Your task to perform on an android device: toggle pop-ups in chrome Image 0: 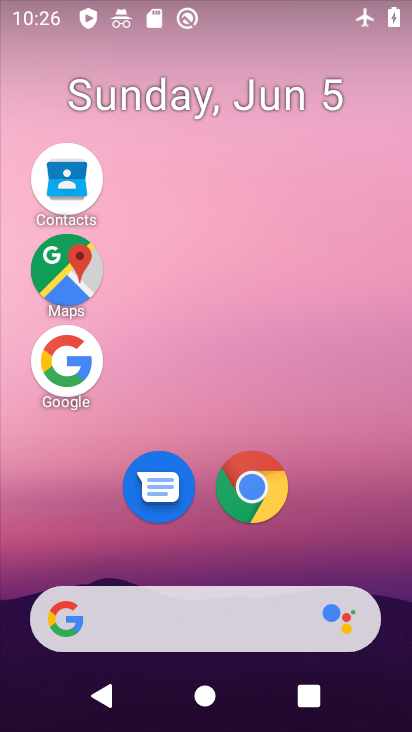
Step 0: drag from (239, 504) to (265, 191)
Your task to perform on an android device: toggle pop-ups in chrome Image 1: 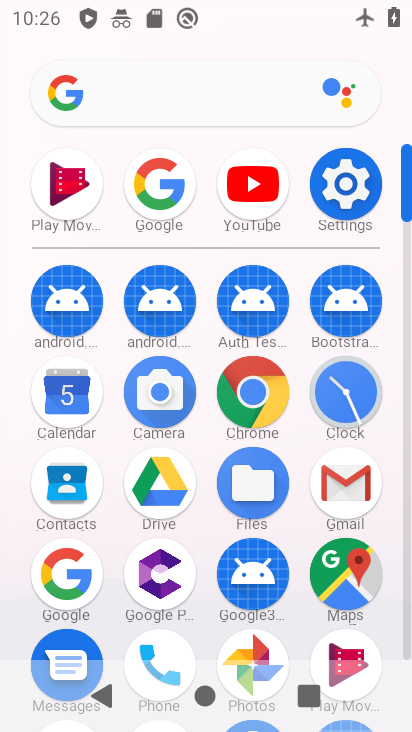
Step 1: click (260, 399)
Your task to perform on an android device: toggle pop-ups in chrome Image 2: 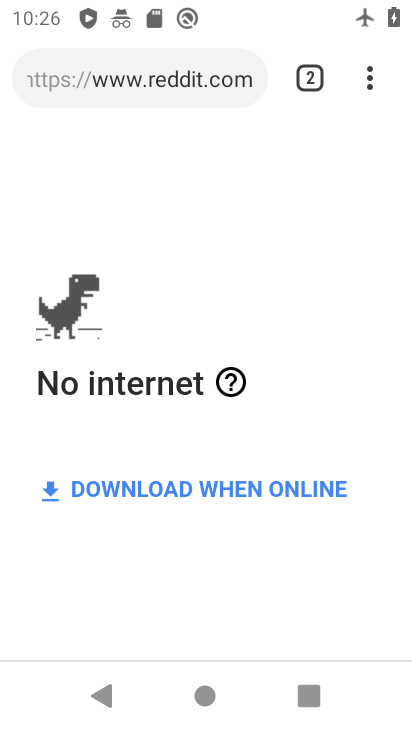
Step 2: click (377, 91)
Your task to perform on an android device: toggle pop-ups in chrome Image 3: 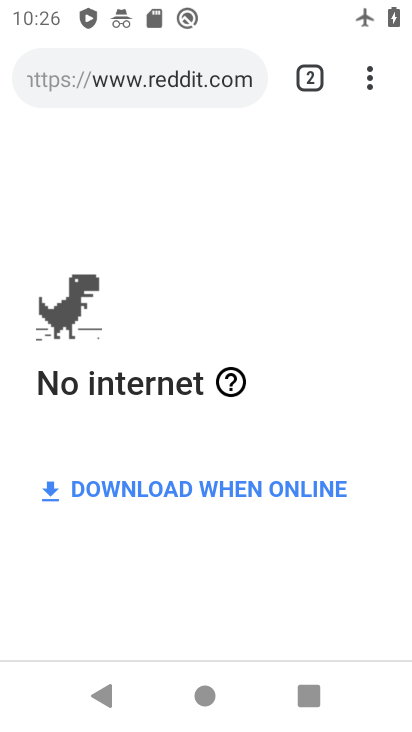
Step 3: click (363, 93)
Your task to perform on an android device: toggle pop-ups in chrome Image 4: 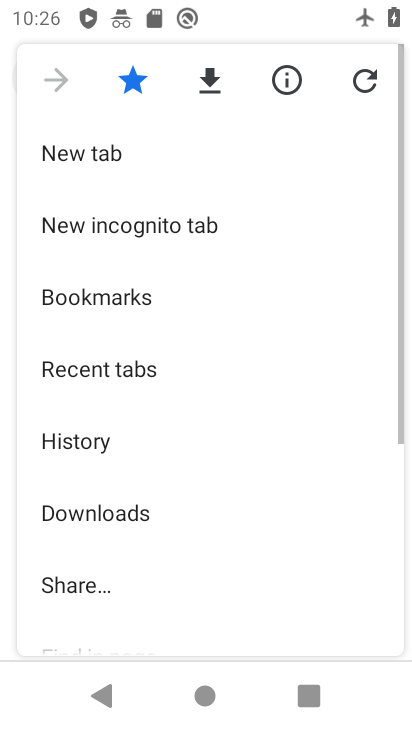
Step 4: drag from (197, 381) to (308, 60)
Your task to perform on an android device: toggle pop-ups in chrome Image 5: 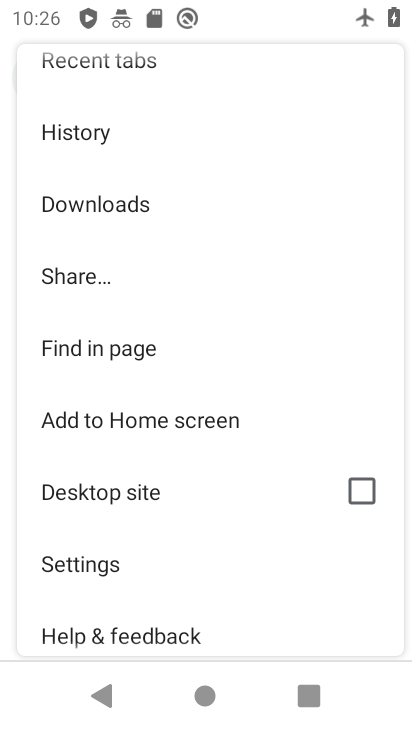
Step 5: click (161, 561)
Your task to perform on an android device: toggle pop-ups in chrome Image 6: 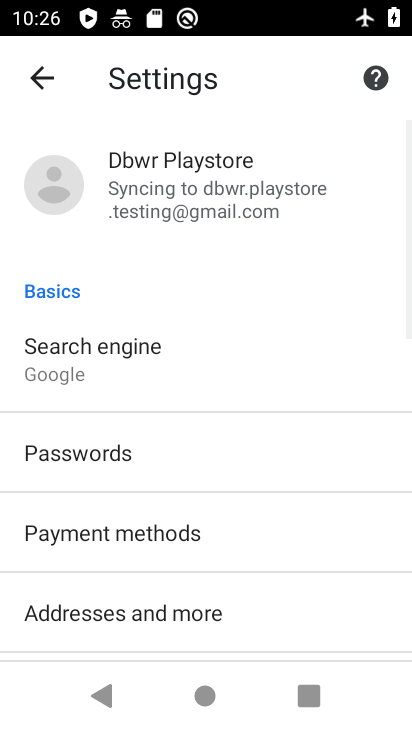
Step 6: drag from (182, 507) to (241, 159)
Your task to perform on an android device: toggle pop-ups in chrome Image 7: 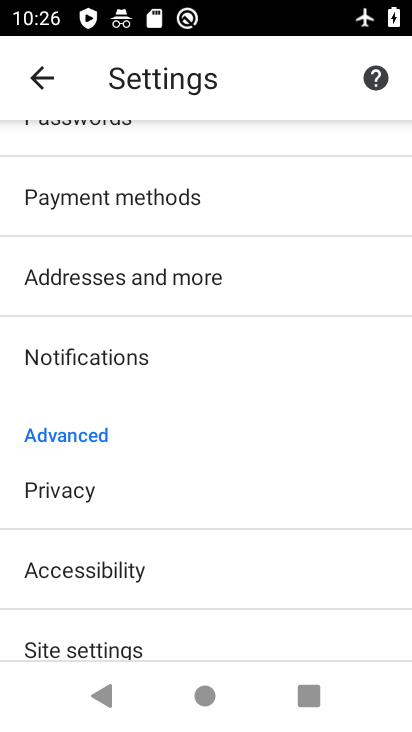
Step 7: click (125, 645)
Your task to perform on an android device: toggle pop-ups in chrome Image 8: 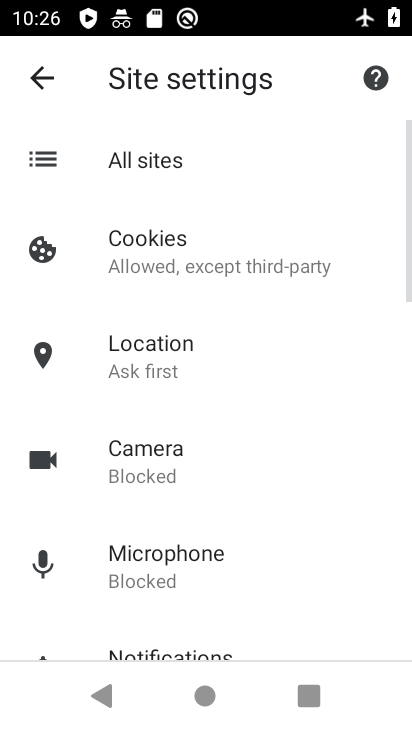
Step 8: drag from (203, 553) to (247, 171)
Your task to perform on an android device: toggle pop-ups in chrome Image 9: 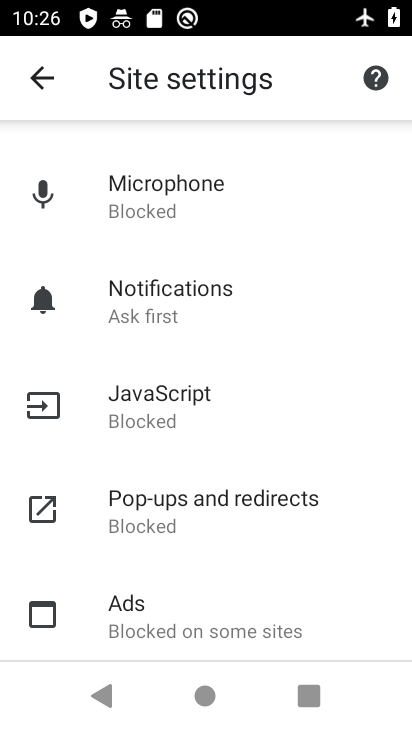
Step 9: click (293, 492)
Your task to perform on an android device: toggle pop-ups in chrome Image 10: 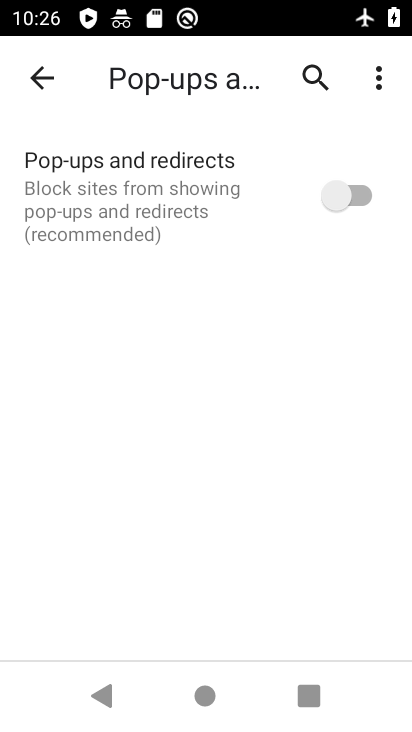
Step 10: click (366, 197)
Your task to perform on an android device: toggle pop-ups in chrome Image 11: 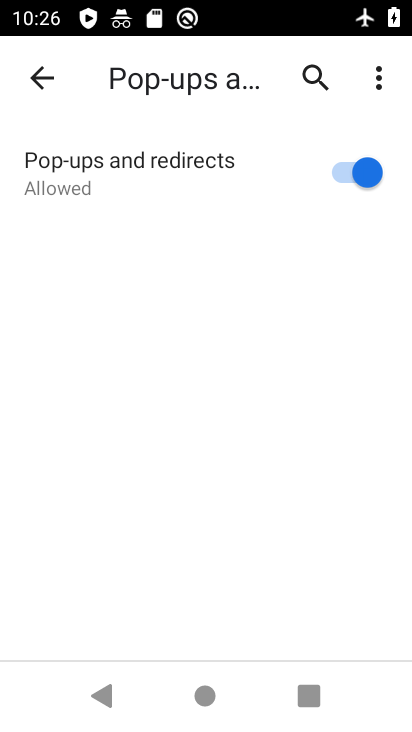
Step 11: task complete